Your task to perform on an android device: Clear all items from cart on walmart.com. Search for usb-c to usb-b on walmart.com, select the first entry, add it to the cart, then select checkout. Image 0: 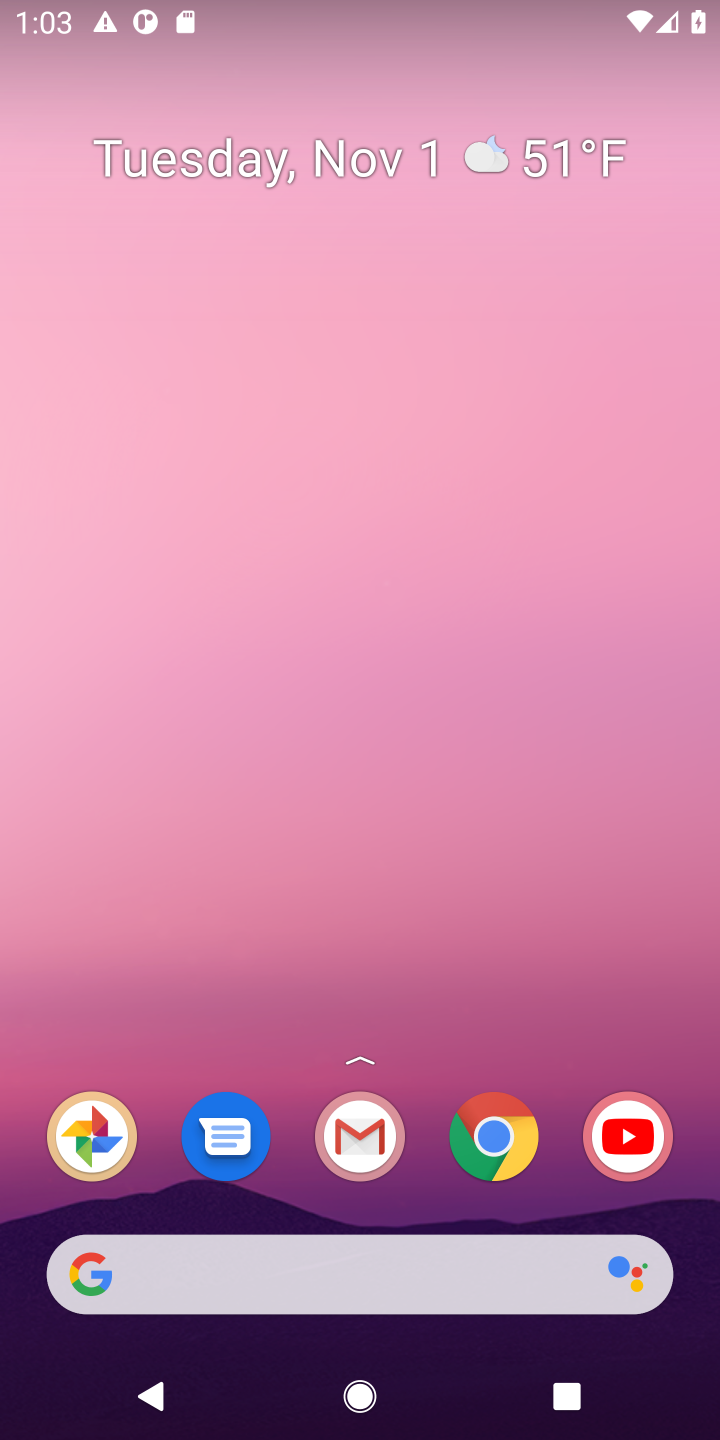
Step 0: click (145, 1254)
Your task to perform on an android device: Clear all items from cart on walmart.com. Search for usb-c to usb-b on walmart.com, select the first entry, add it to the cart, then select checkout. Image 1: 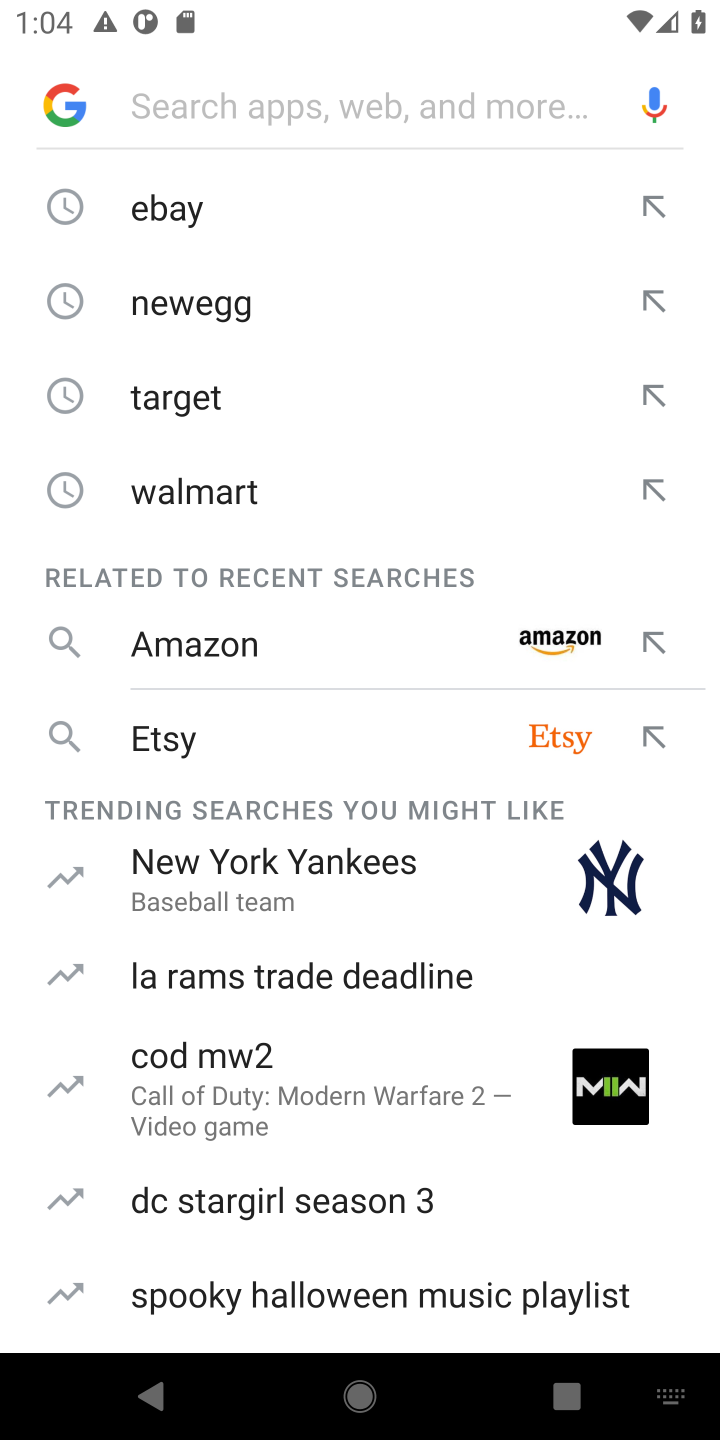
Step 1: type "walmart.com."
Your task to perform on an android device: Clear all items from cart on walmart.com. Search for usb-c to usb-b on walmart.com, select the first entry, add it to the cart, then select checkout. Image 2: 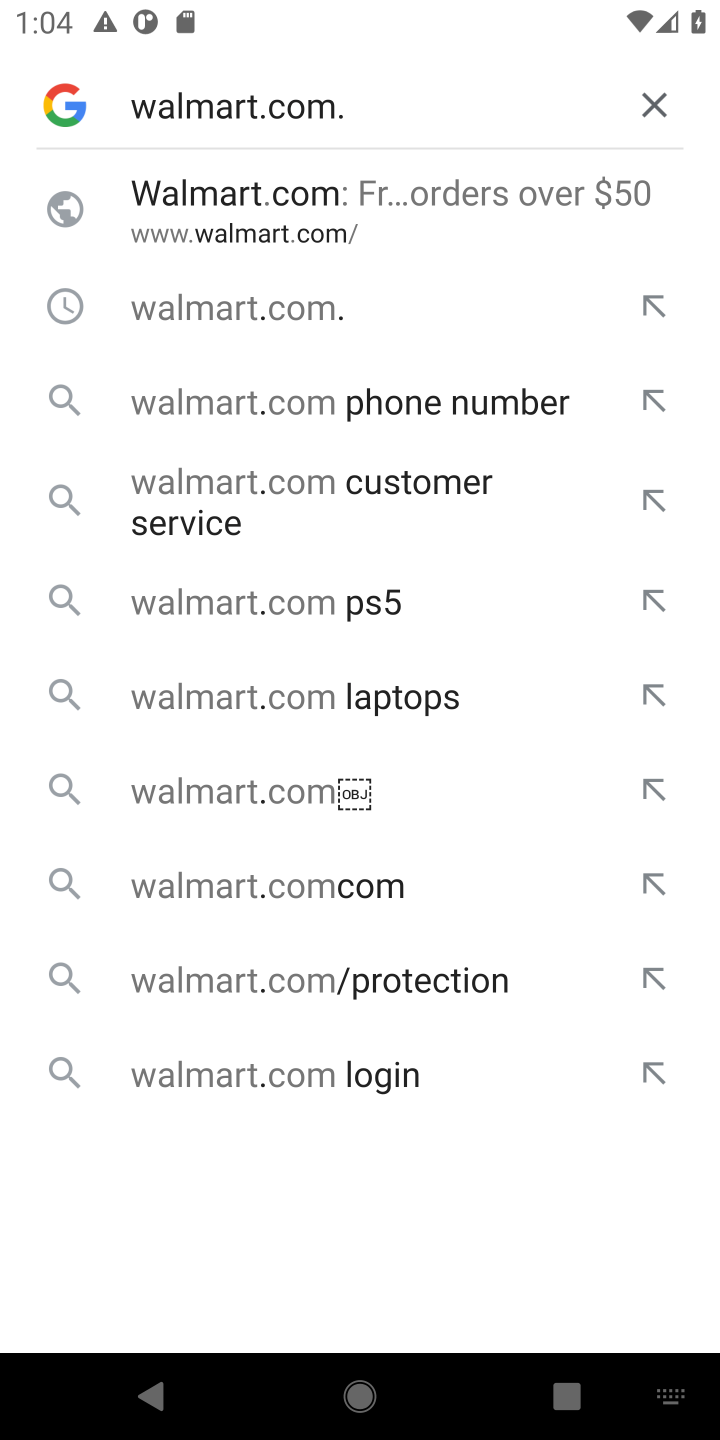
Step 2: press enter
Your task to perform on an android device: Clear all items from cart on walmart.com. Search for usb-c to usb-b on walmart.com, select the first entry, add it to the cart, then select checkout. Image 3: 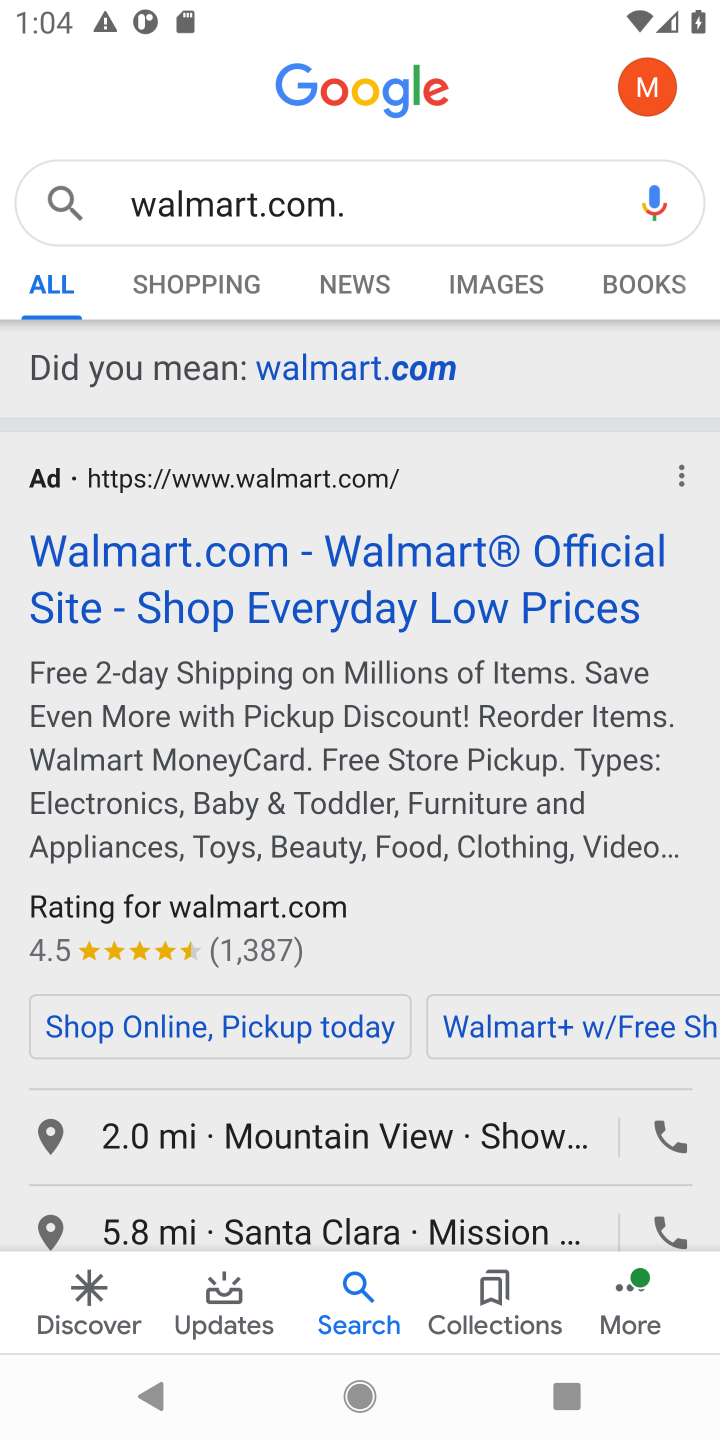
Step 3: drag from (363, 1066) to (399, 645)
Your task to perform on an android device: Clear all items from cart on walmart.com. Search for usb-c to usb-b on walmart.com, select the first entry, add it to the cart, then select checkout. Image 4: 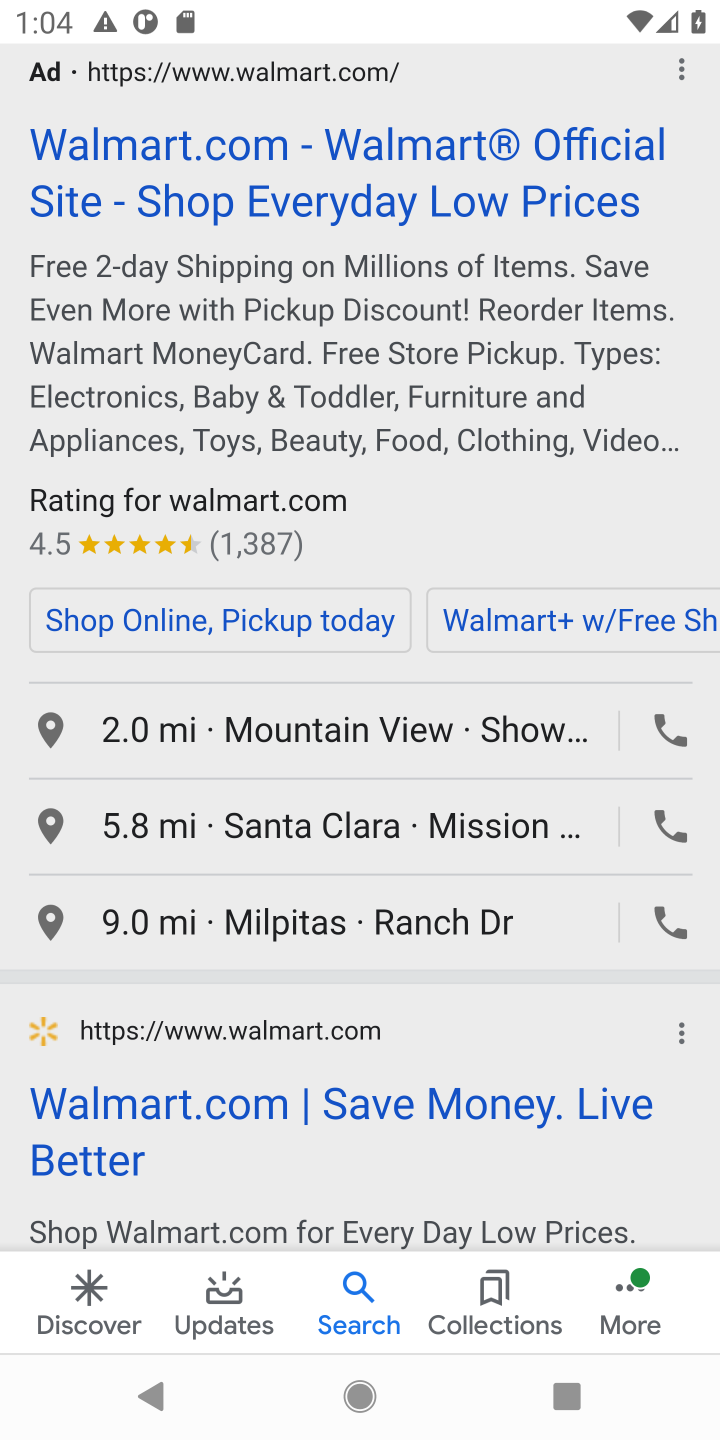
Step 4: drag from (447, 338) to (399, 831)
Your task to perform on an android device: Clear all items from cart on walmart.com. Search for usb-c to usb-b on walmart.com, select the first entry, add it to the cart, then select checkout. Image 5: 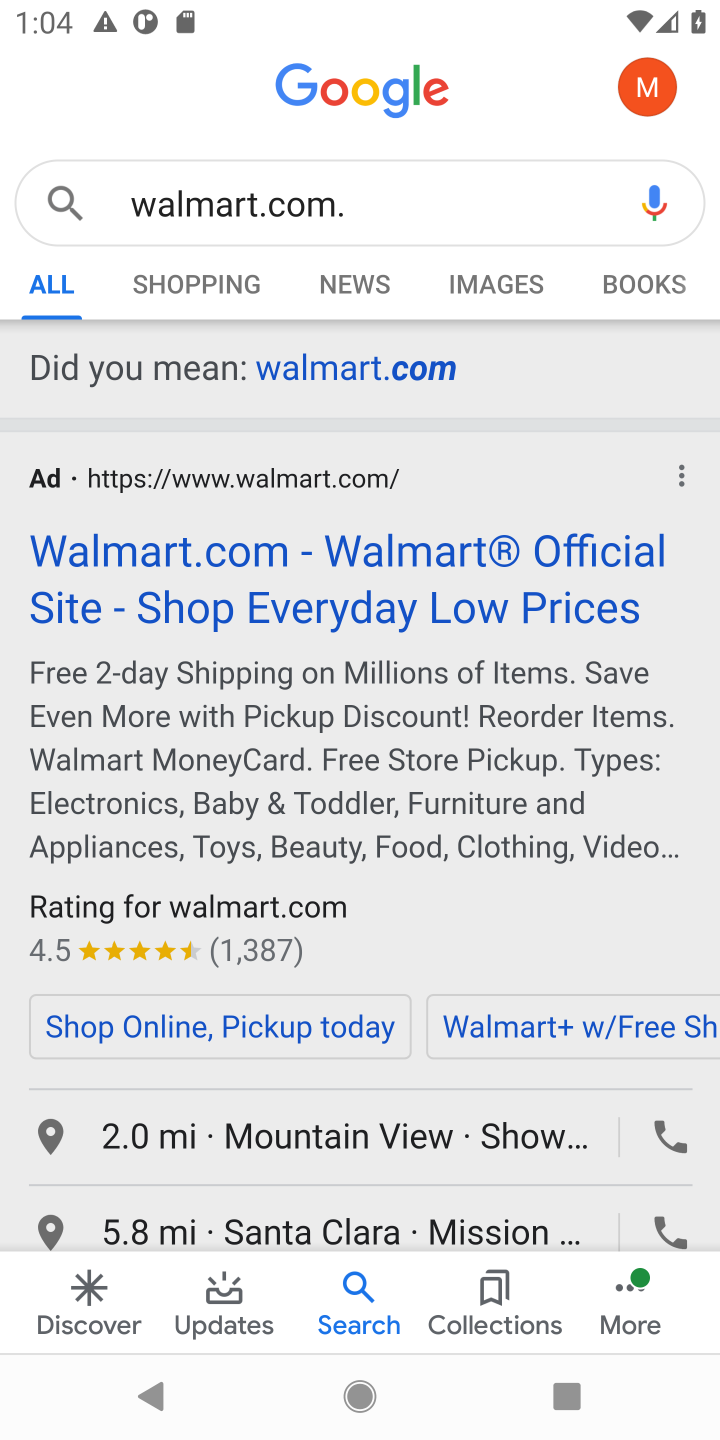
Step 5: click (247, 570)
Your task to perform on an android device: Clear all items from cart on walmart.com. Search for usb-c to usb-b on walmart.com, select the first entry, add it to the cart, then select checkout. Image 6: 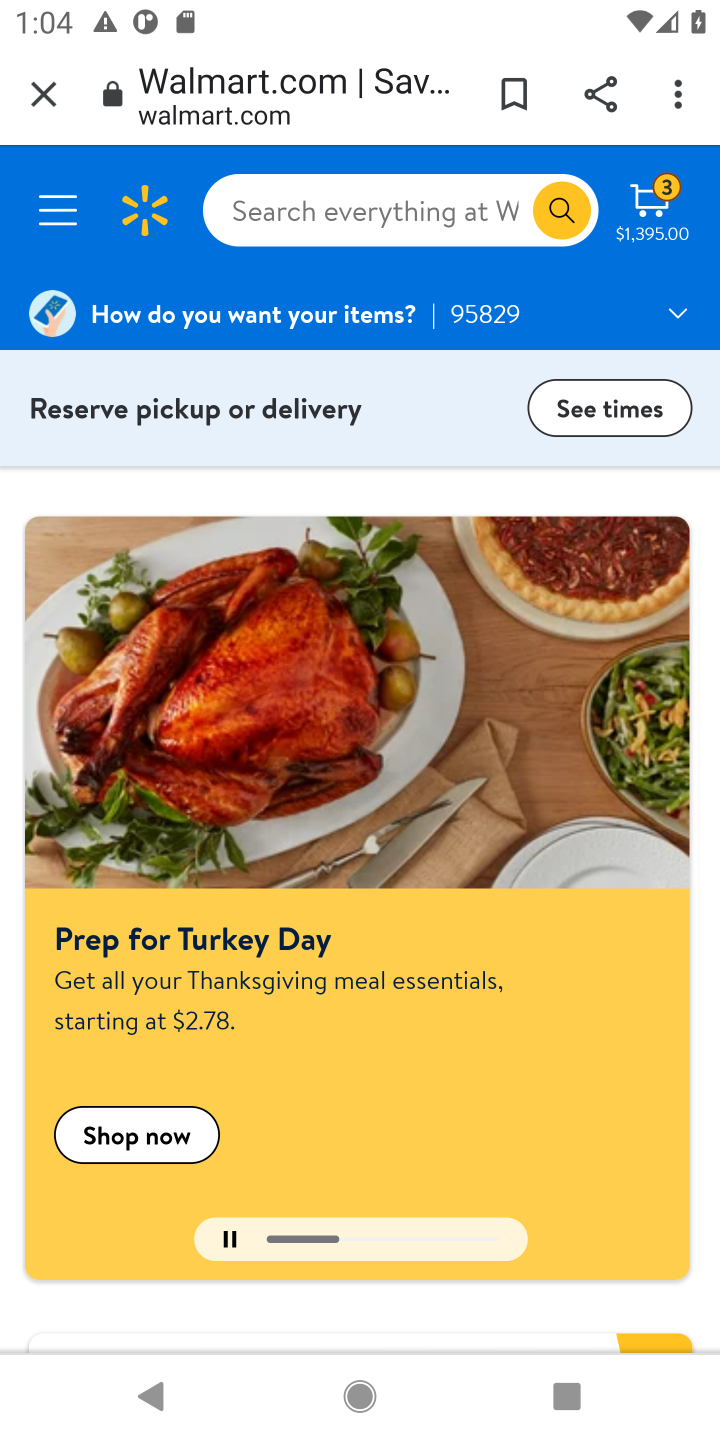
Step 6: drag from (460, 970) to (476, 773)
Your task to perform on an android device: Clear all items from cart on walmart.com. Search for usb-c to usb-b on walmart.com, select the first entry, add it to the cart, then select checkout. Image 7: 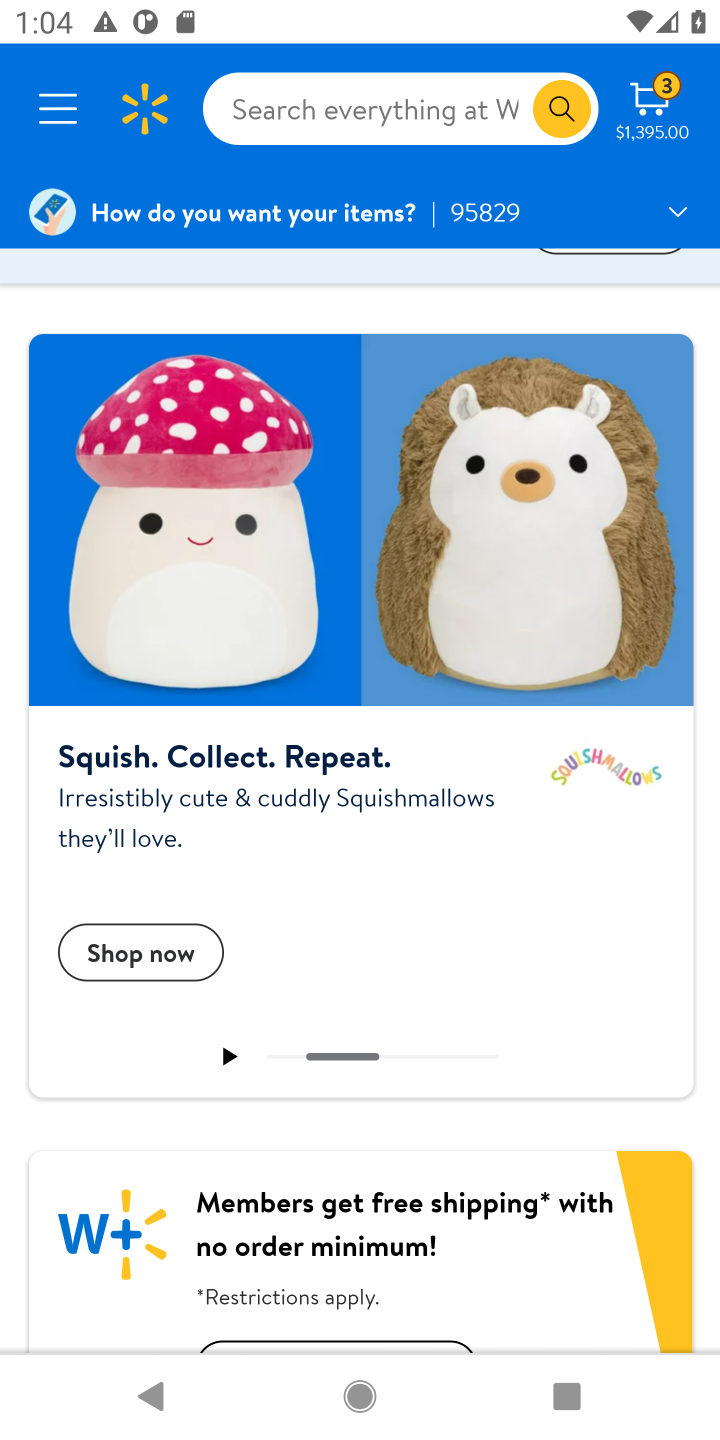
Step 7: click (304, 101)
Your task to perform on an android device: Clear all items from cart on walmart.com. Search for usb-c to usb-b on walmart.com, select the first entry, add it to the cart, then select checkout. Image 8: 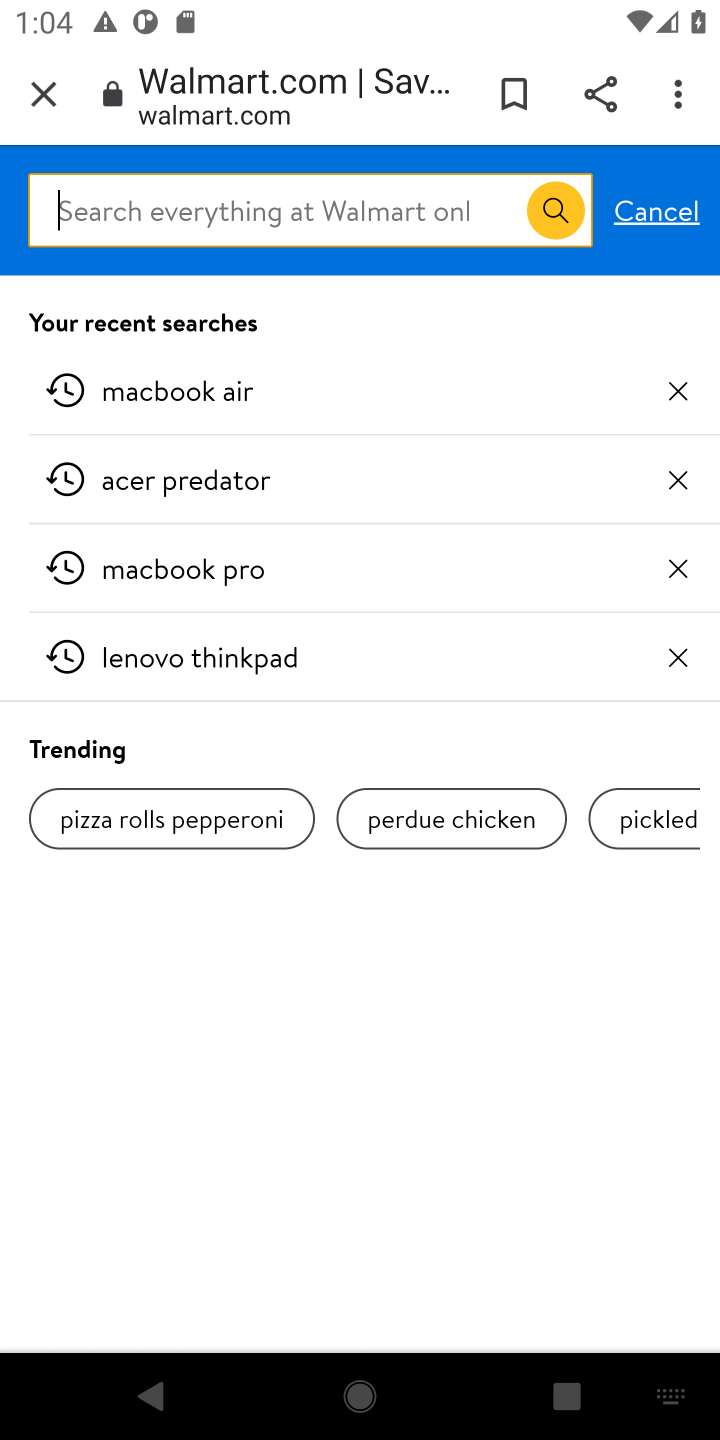
Step 8: click (651, 210)
Your task to perform on an android device: Clear all items from cart on walmart.com. Search for usb-c to usb-b on walmart.com, select the first entry, add it to the cart, then select checkout. Image 9: 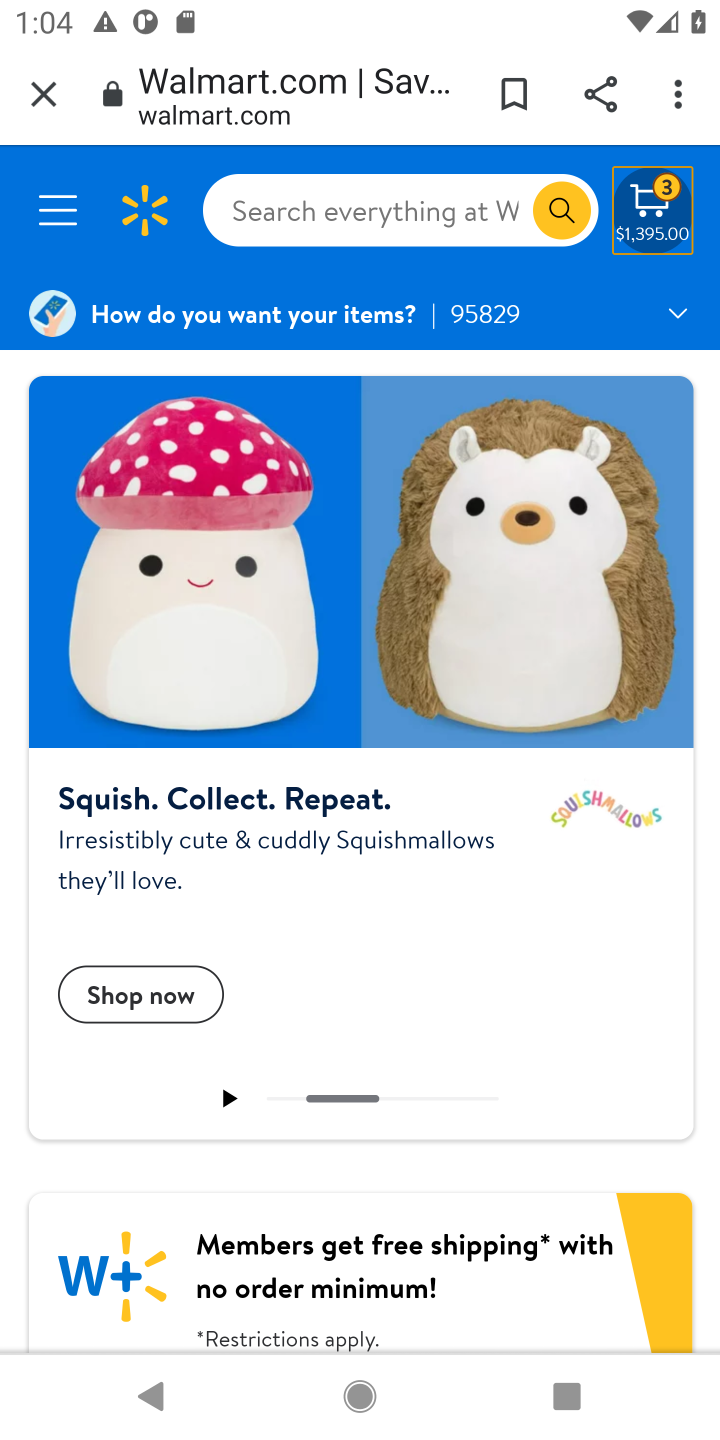
Step 9: click (669, 198)
Your task to perform on an android device: Clear all items from cart on walmart.com. Search for usb-c to usb-b on walmart.com, select the first entry, add it to the cart, then select checkout. Image 10: 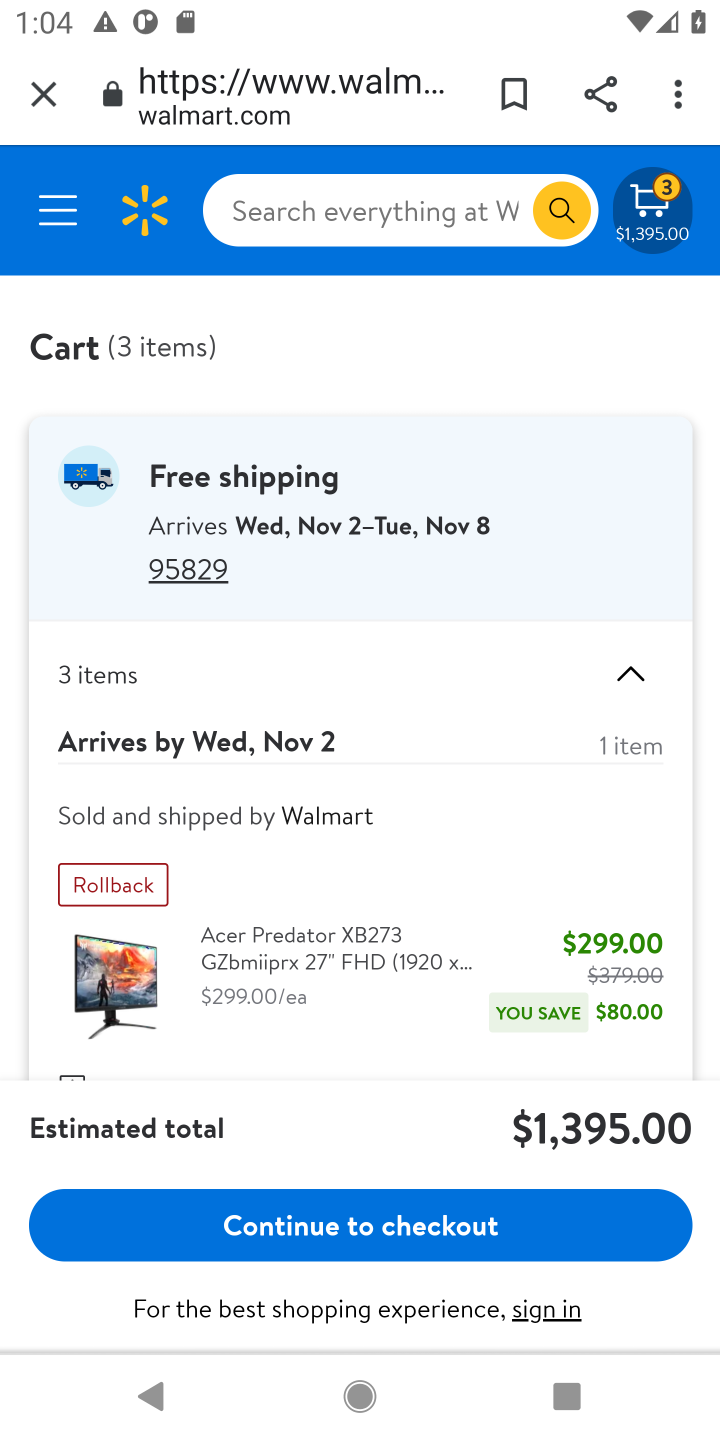
Step 10: drag from (379, 928) to (449, 506)
Your task to perform on an android device: Clear all items from cart on walmart.com. Search for usb-c to usb-b on walmart.com, select the first entry, add it to the cart, then select checkout. Image 11: 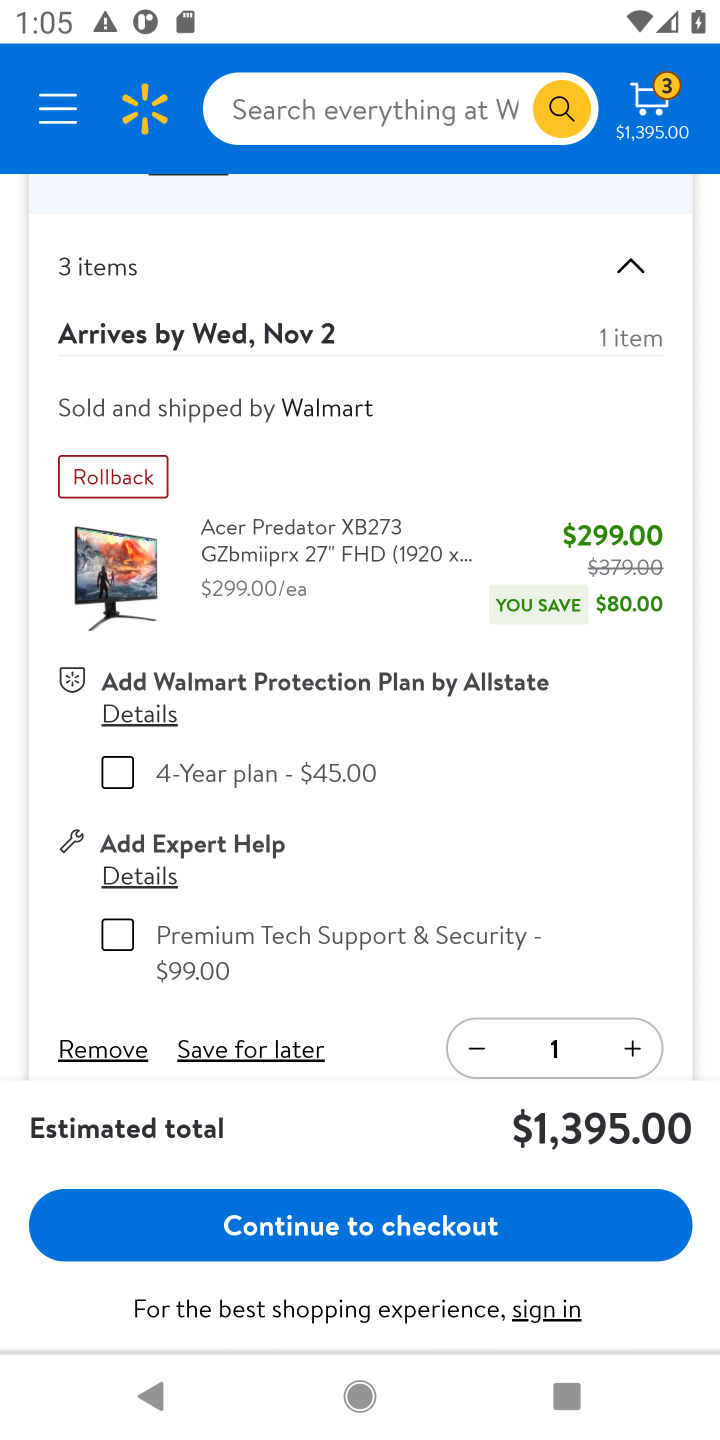
Step 11: drag from (345, 872) to (369, 357)
Your task to perform on an android device: Clear all items from cart on walmart.com. Search for usb-c to usb-b on walmart.com, select the first entry, add it to the cart, then select checkout. Image 12: 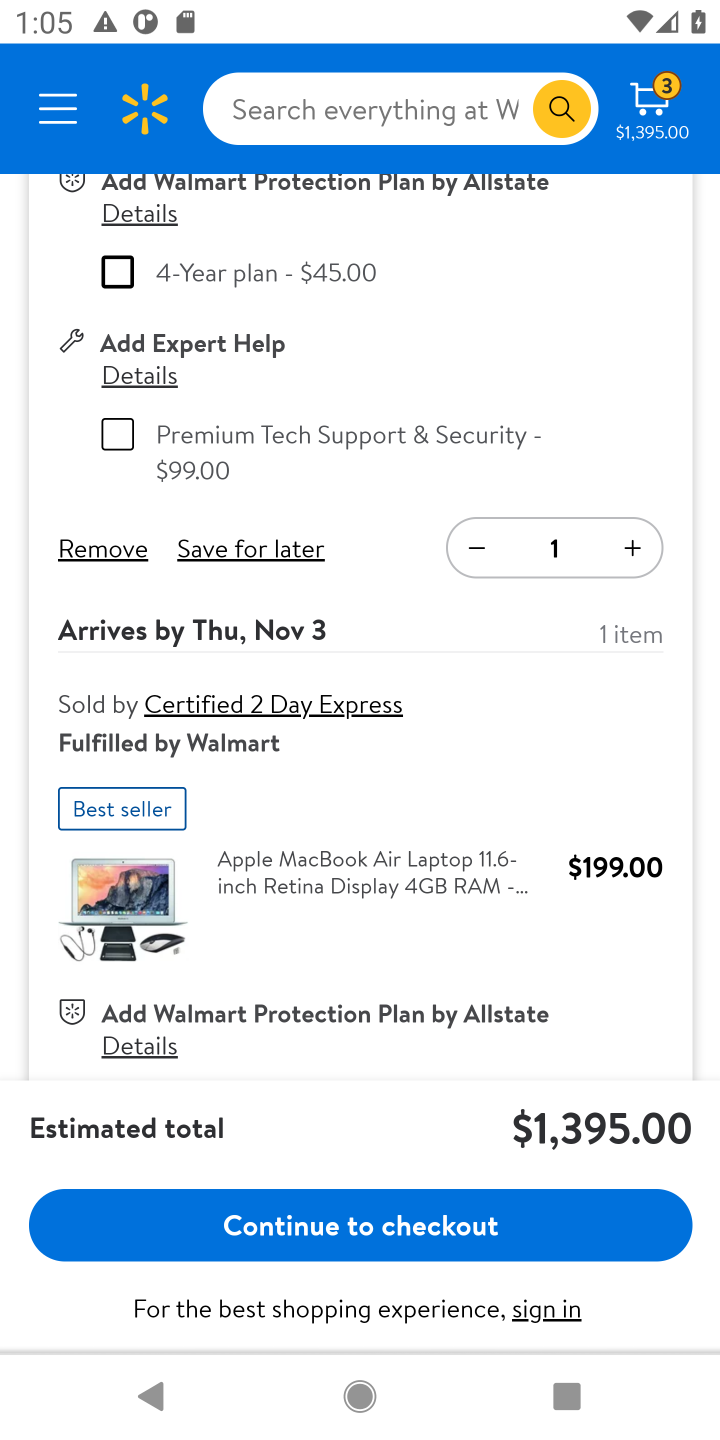
Step 12: click (93, 556)
Your task to perform on an android device: Clear all items from cart on walmart.com. Search for usb-c to usb-b on walmart.com, select the first entry, add it to the cart, then select checkout. Image 13: 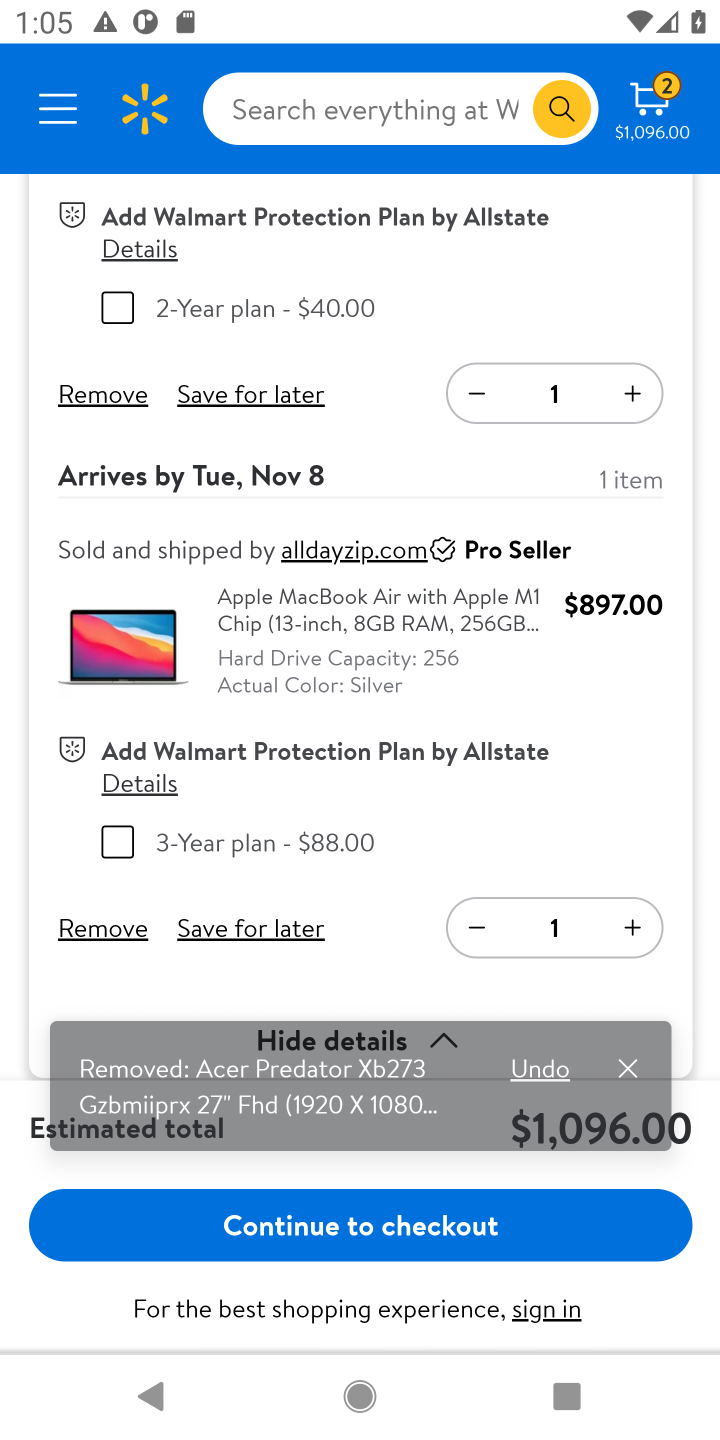
Step 13: click (93, 391)
Your task to perform on an android device: Clear all items from cart on walmart.com. Search for usb-c to usb-b on walmart.com, select the first entry, add it to the cart, then select checkout. Image 14: 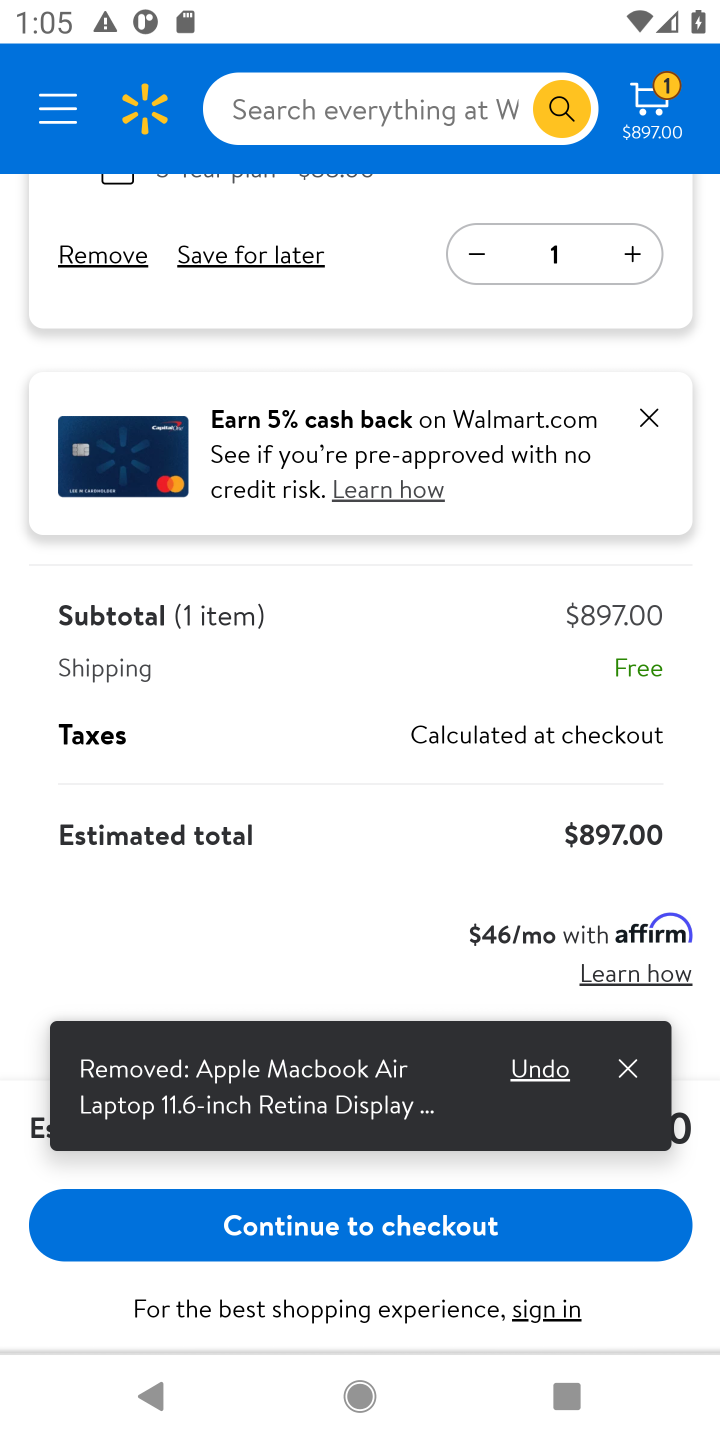
Step 14: click (93, 253)
Your task to perform on an android device: Clear all items from cart on walmart.com. Search for usb-c to usb-b on walmart.com, select the first entry, add it to the cart, then select checkout. Image 15: 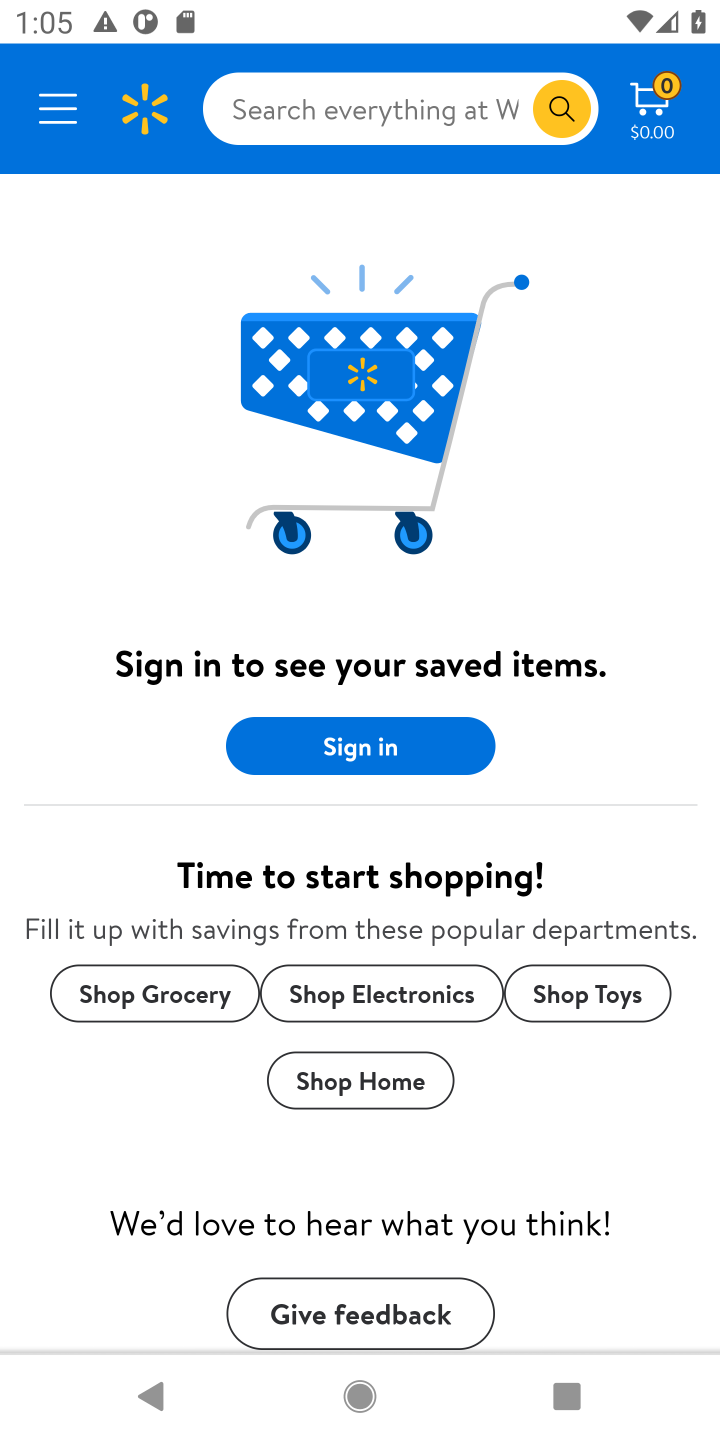
Step 15: click (269, 93)
Your task to perform on an android device: Clear all items from cart on walmart.com. Search for usb-c to usb-b on walmart.com, select the first entry, add it to the cart, then select checkout. Image 16: 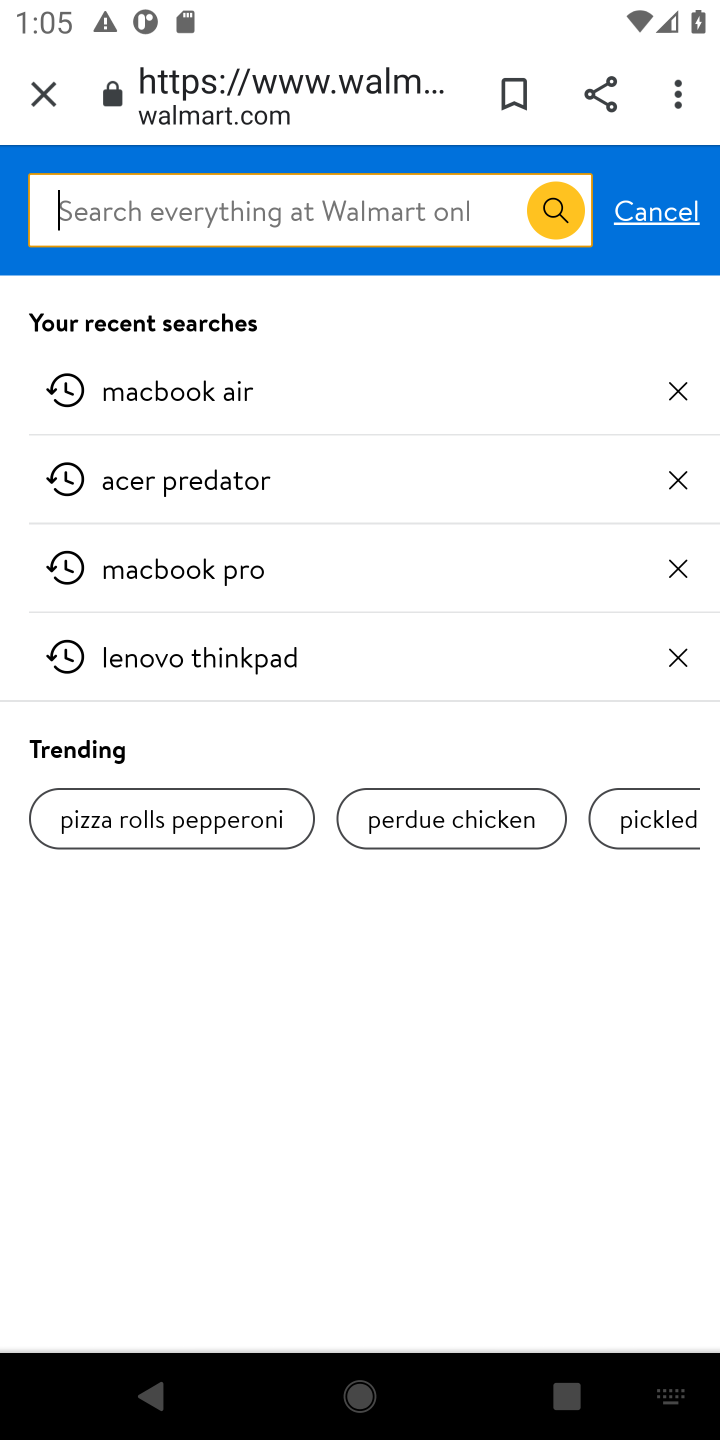
Step 16: press enter
Your task to perform on an android device: Clear all items from cart on walmart.com. Search for usb-c to usb-b on walmart.com, select the first entry, add it to the cart, then select checkout. Image 17: 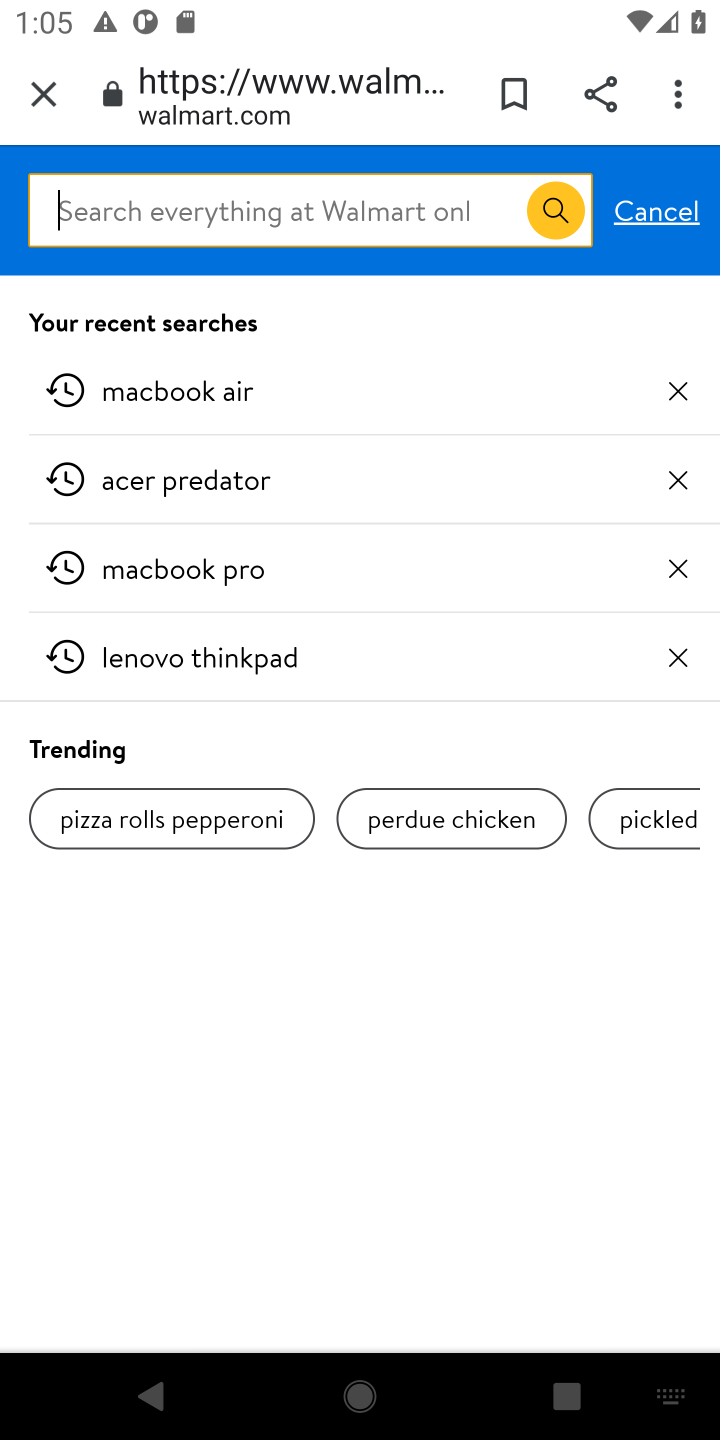
Step 17: type "usb-c to usb-b"
Your task to perform on an android device: Clear all items from cart on walmart.com. Search for usb-c to usb-b on walmart.com, select the first entry, add it to the cart, then select checkout. Image 18: 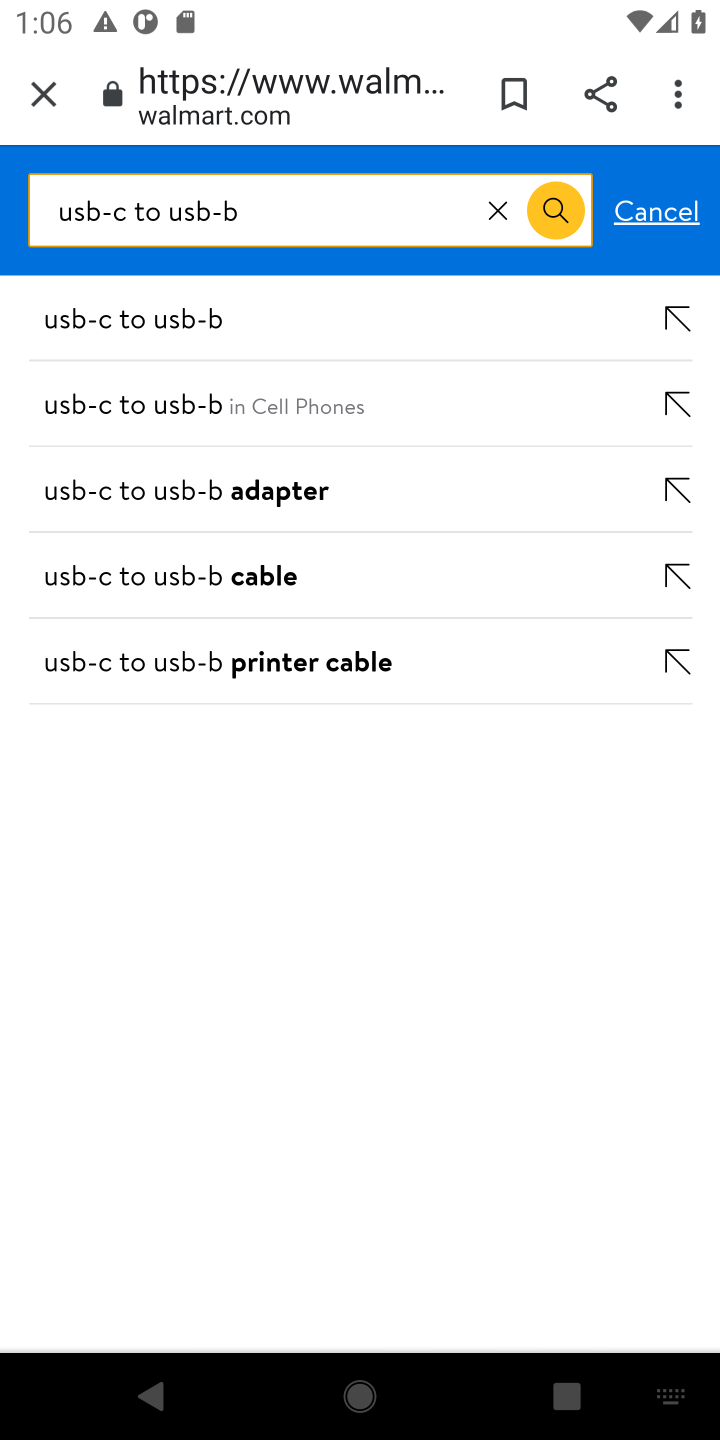
Step 18: click (547, 190)
Your task to perform on an android device: Clear all items from cart on walmart.com. Search for usb-c to usb-b on walmart.com, select the first entry, add it to the cart, then select checkout. Image 19: 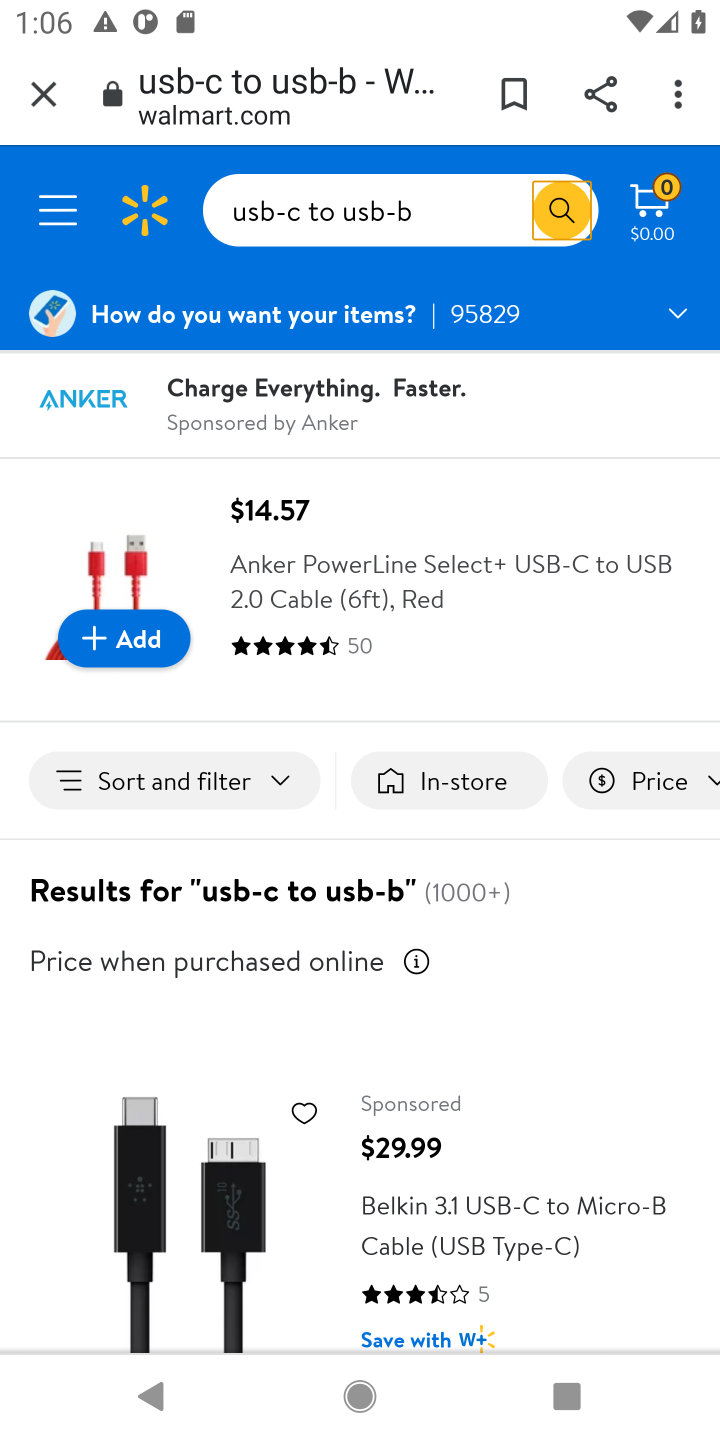
Step 19: drag from (504, 1242) to (502, 544)
Your task to perform on an android device: Clear all items from cart on walmart.com. Search for usb-c to usb-b on walmart.com, select the first entry, add it to the cart, then select checkout. Image 20: 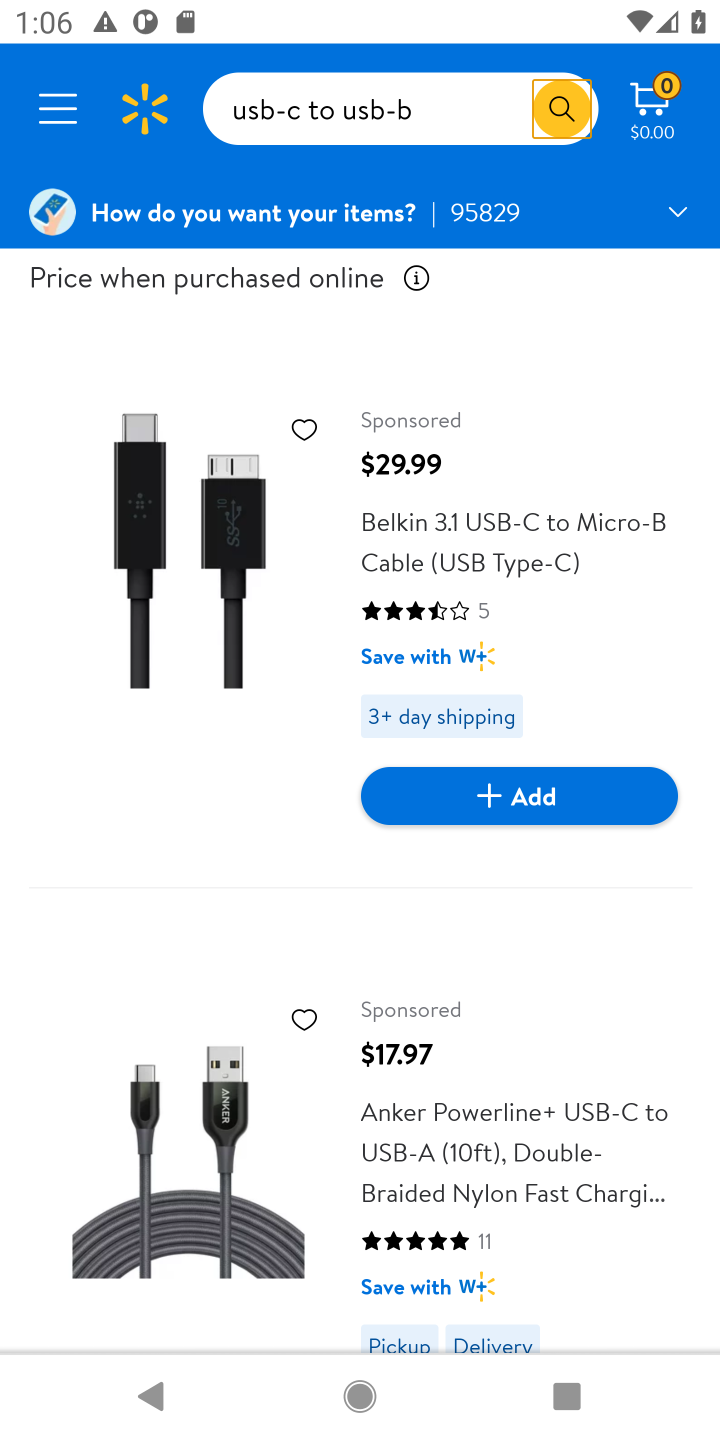
Step 20: drag from (469, 1031) to (501, 606)
Your task to perform on an android device: Clear all items from cart on walmart.com. Search for usb-c to usb-b on walmart.com, select the first entry, add it to the cart, then select checkout. Image 21: 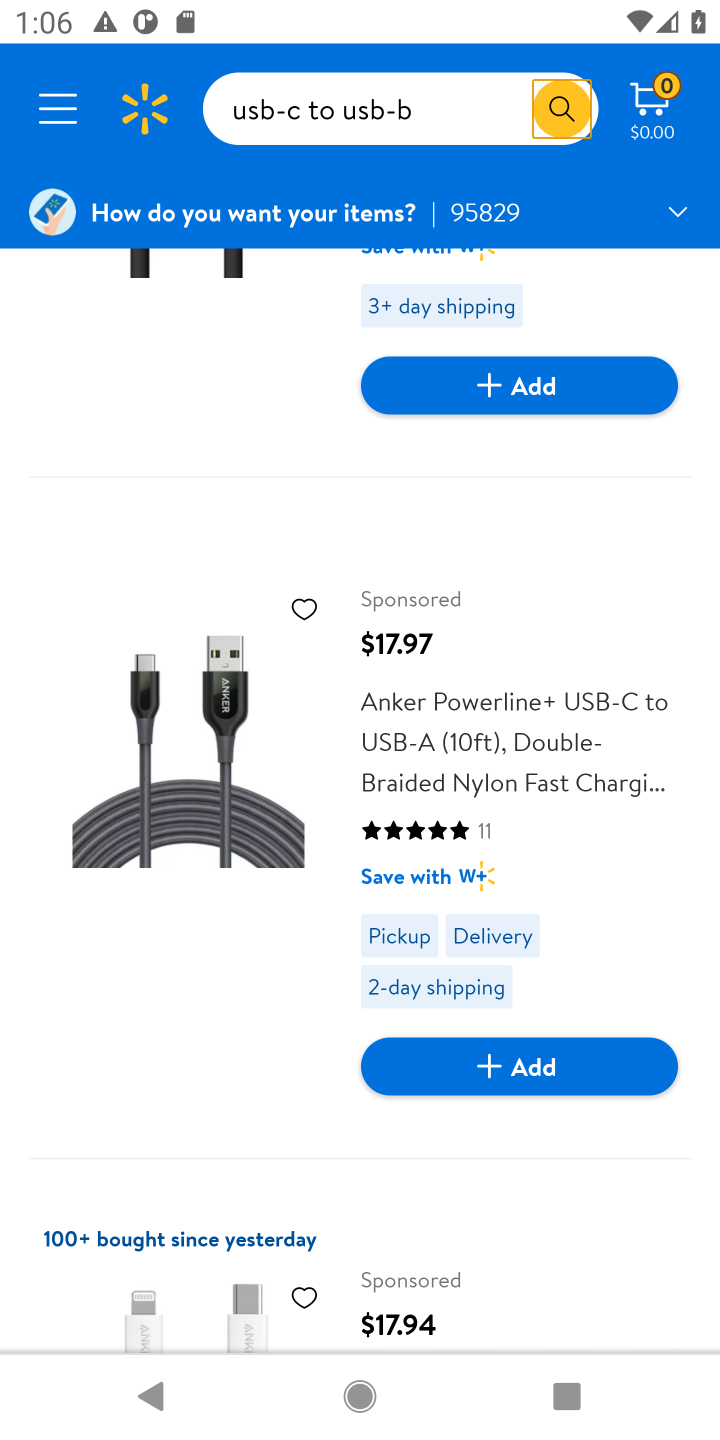
Step 21: drag from (454, 459) to (422, 880)
Your task to perform on an android device: Clear all items from cart on walmart.com. Search for usb-c to usb-b on walmart.com, select the first entry, add it to the cart, then select checkout. Image 22: 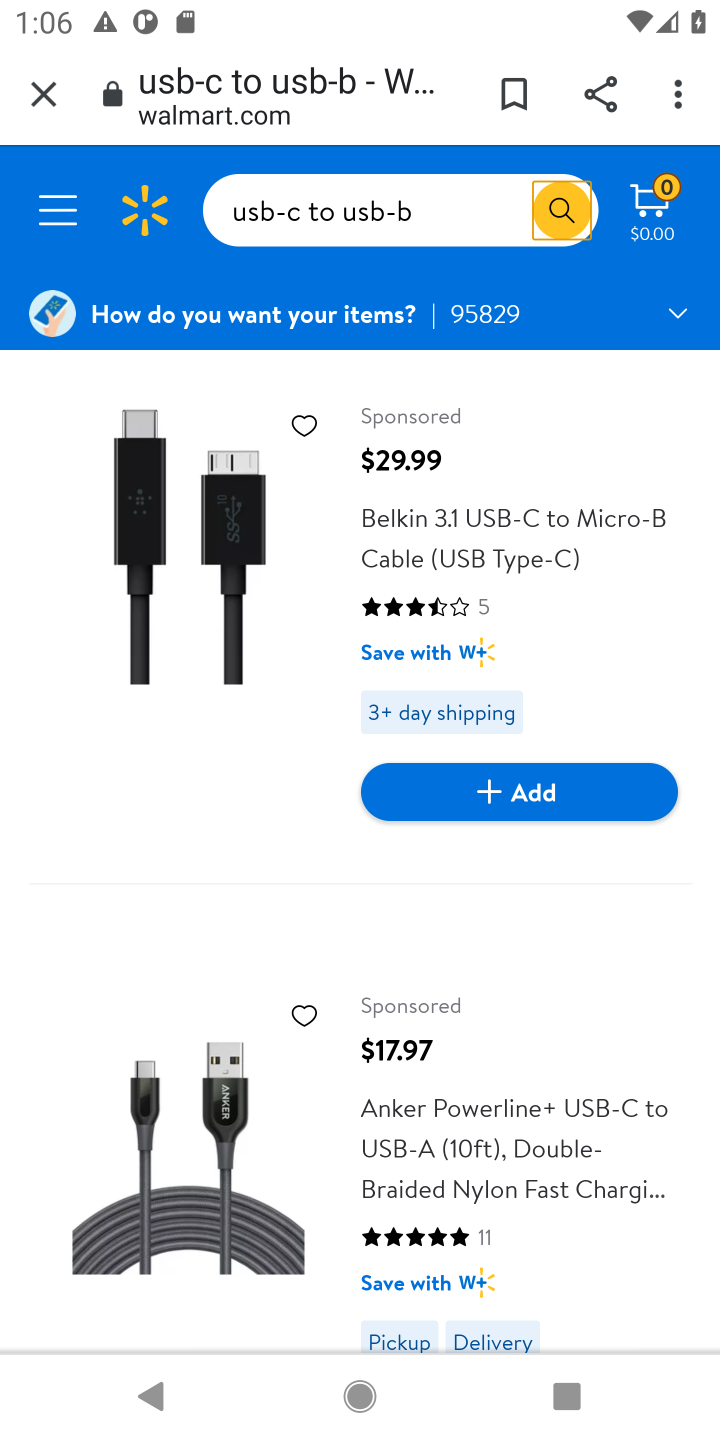
Step 22: click (522, 787)
Your task to perform on an android device: Clear all items from cart on walmart.com. Search for usb-c to usb-b on walmart.com, select the first entry, add it to the cart, then select checkout. Image 23: 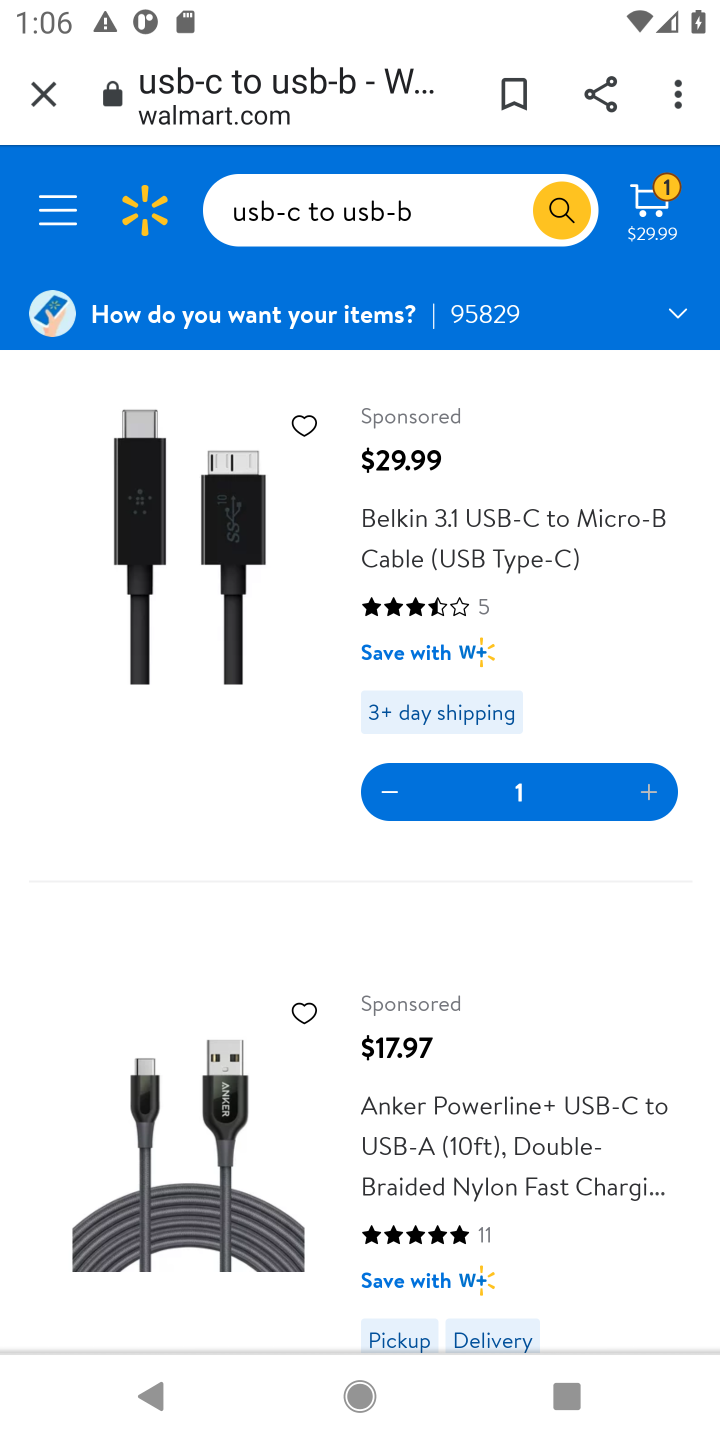
Step 23: click (667, 193)
Your task to perform on an android device: Clear all items from cart on walmart.com. Search for usb-c to usb-b on walmart.com, select the first entry, add it to the cart, then select checkout. Image 24: 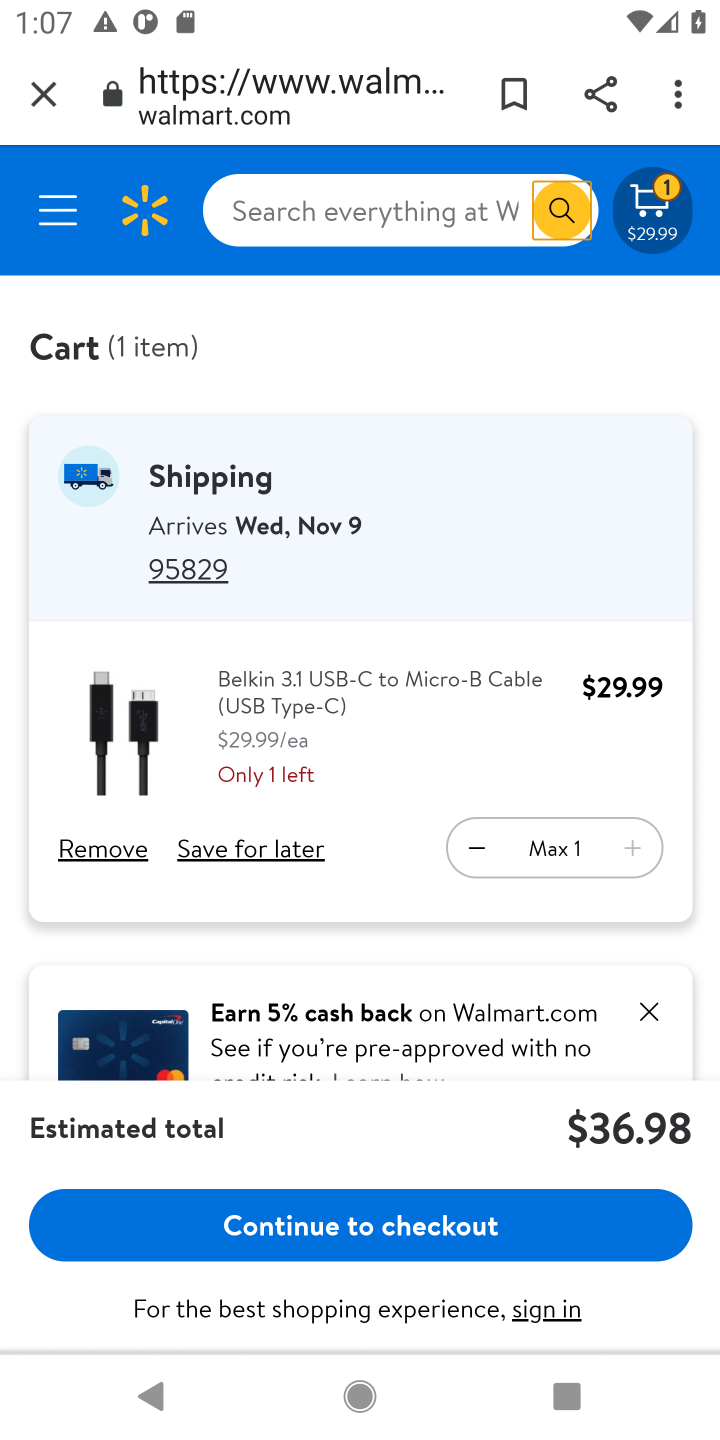
Step 24: click (383, 1241)
Your task to perform on an android device: Clear all items from cart on walmart.com. Search for usb-c to usb-b on walmart.com, select the first entry, add it to the cart, then select checkout. Image 25: 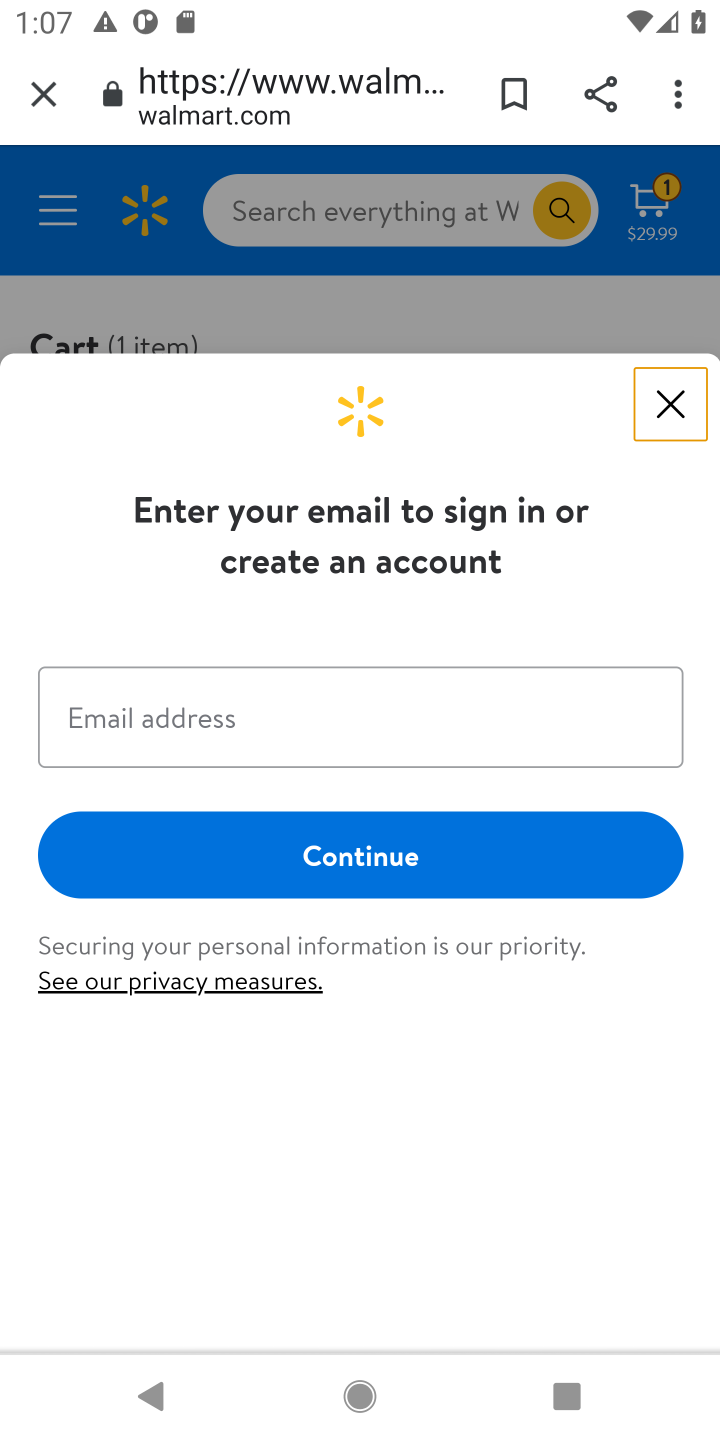
Step 25: task complete